Your task to perform on an android device: open app "Messages" Image 0: 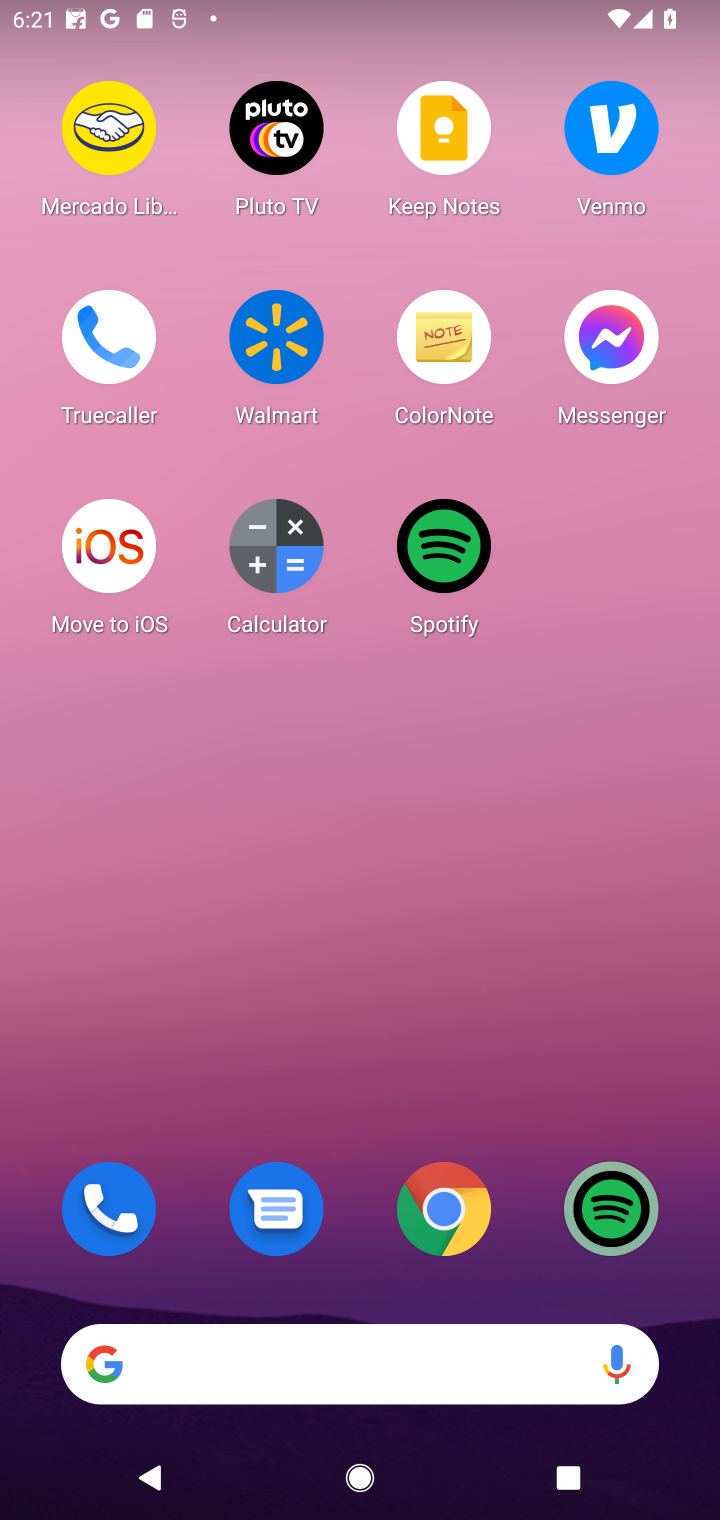
Step 0: drag from (365, 926) to (403, 193)
Your task to perform on an android device: open app "Messages" Image 1: 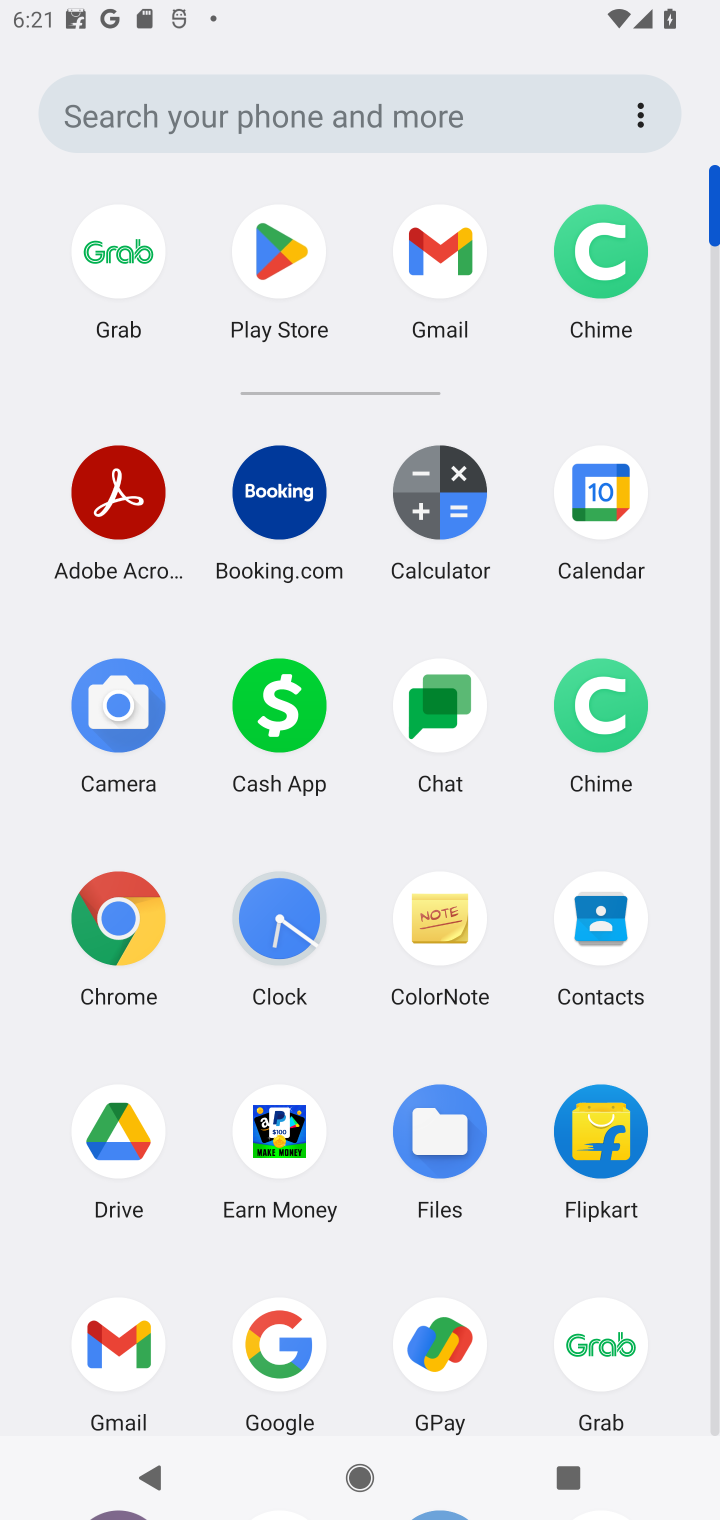
Step 1: click (493, 103)
Your task to perform on an android device: open app "Messages" Image 2: 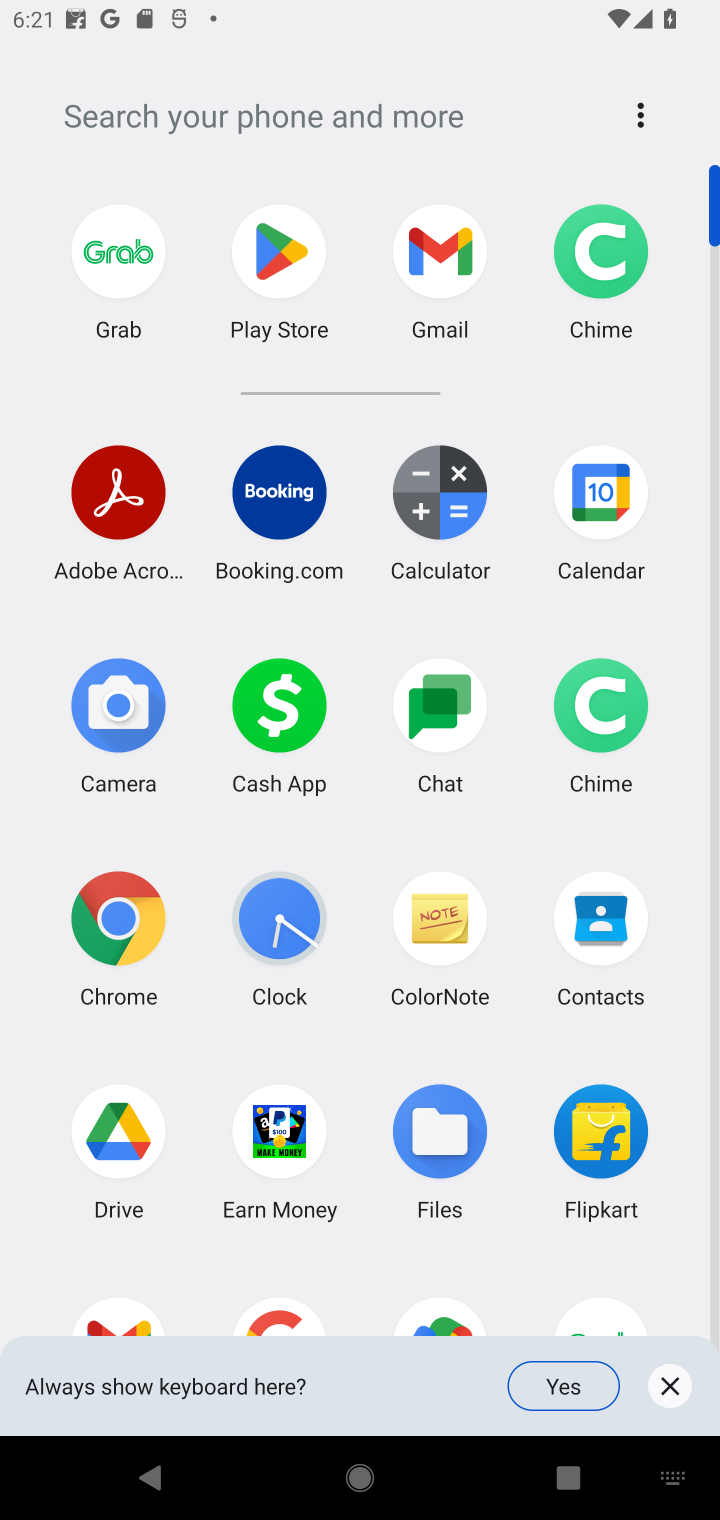
Step 2: type "message"
Your task to perform on an android device: open app "Messages" Image 3: 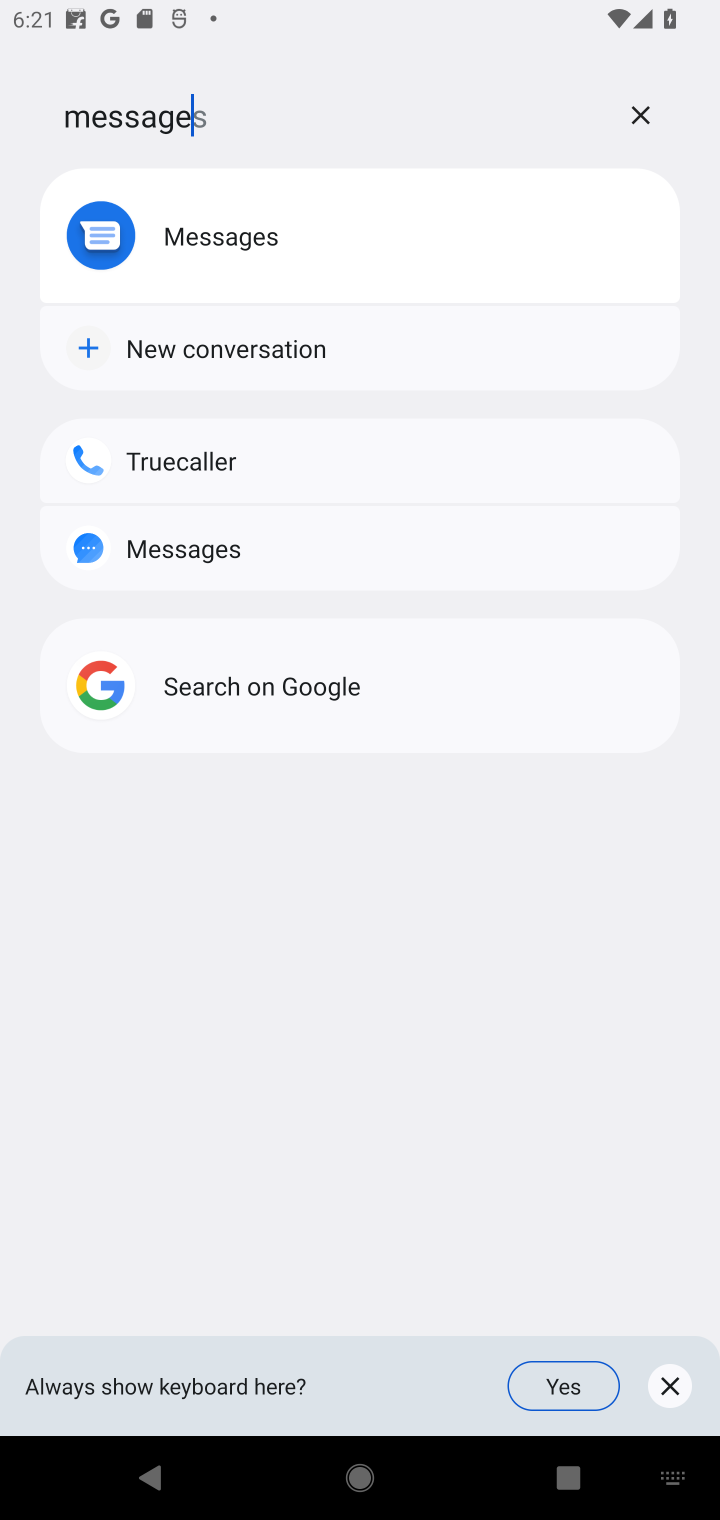
Step 3: click (244, 285)
Your task to perform on an android device: open app "Messages" Image 4: 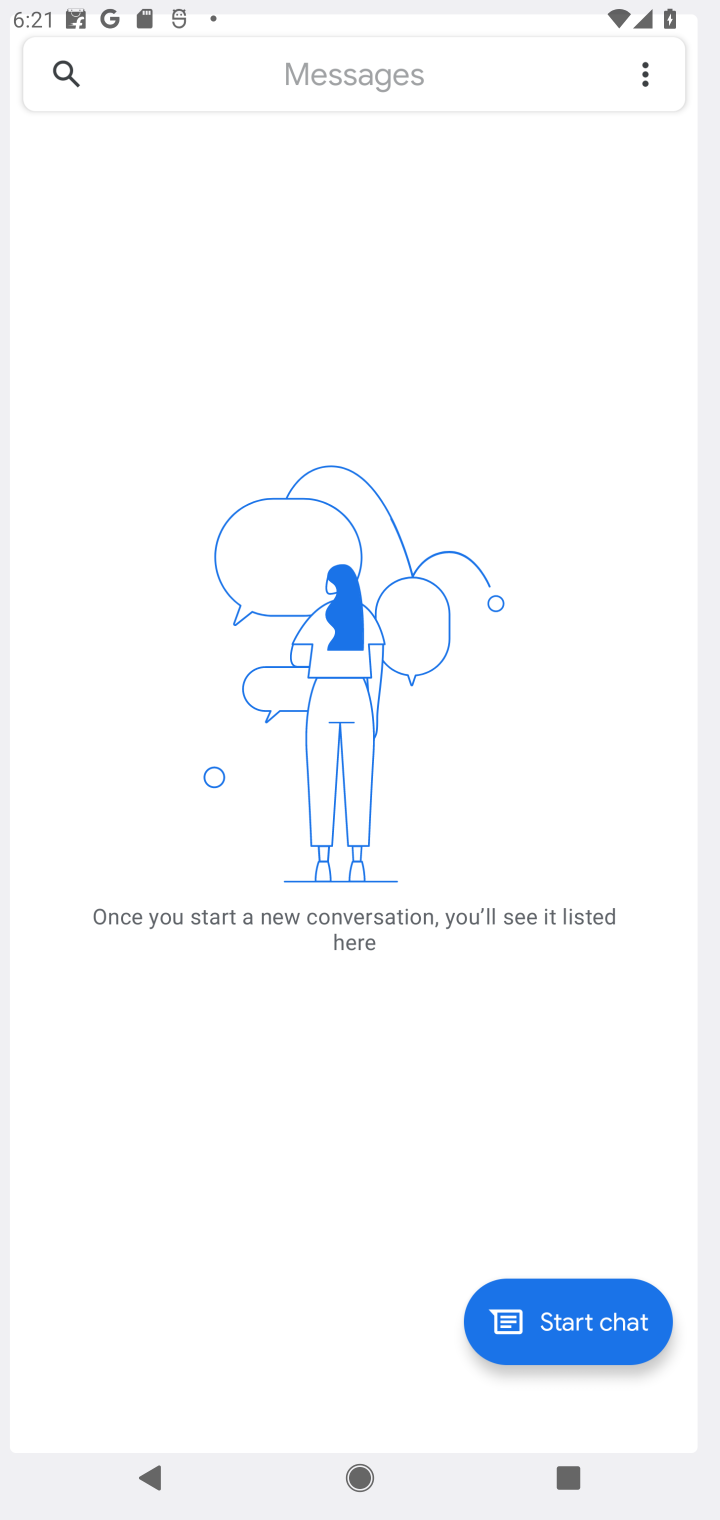
Step 4: task complete